Your task to perform on an android device: add a contact Image 0: 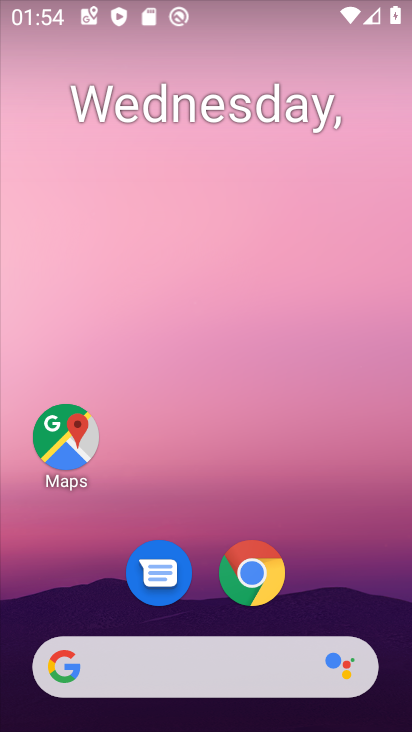
Step 0: drag from (369, 584) to (296, 21)
Your task to perform on an android device: add a contact Image 1: 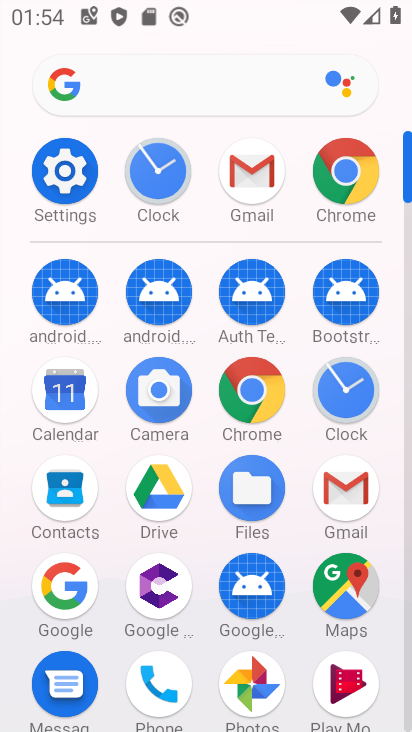
Step 1: click (66, 488)
Your task to perform on an android device: add a contact Image 2: 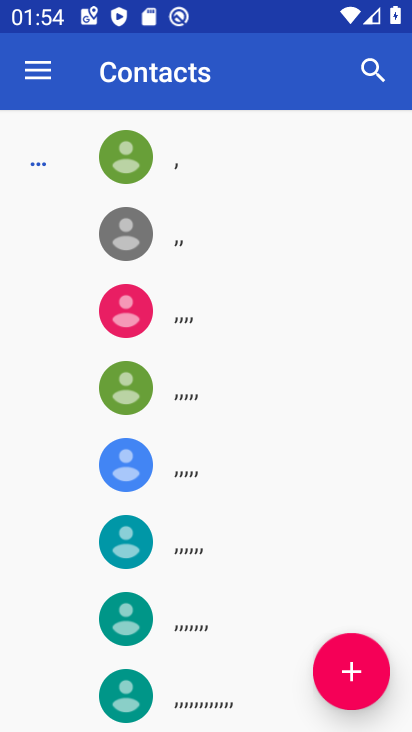
Step 2: click (354, 668)
Your task to perform on an android device: add a contact Image 3: 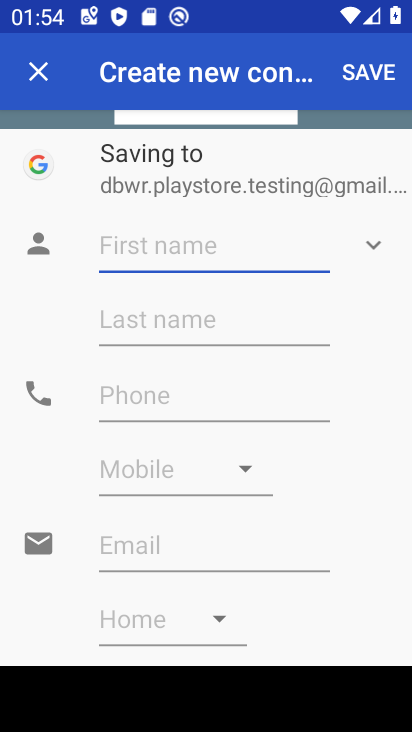
Step 3: type "Satyaprakash"
Your task to perform on an android device: add a contact Image 4: 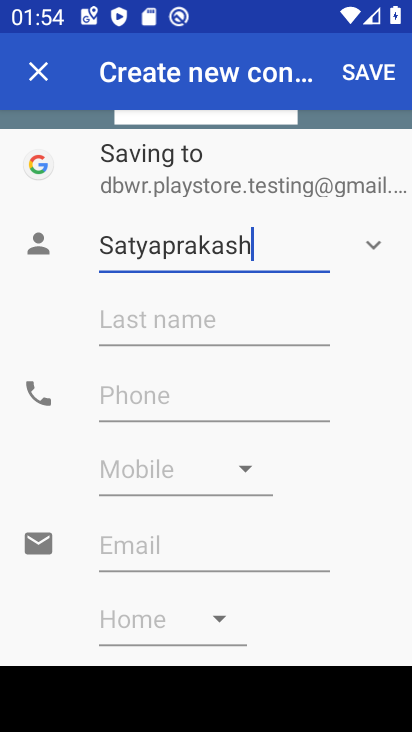
Step 4: click (259, 325)
Your task to perform on an android device: add a contact Image 5: 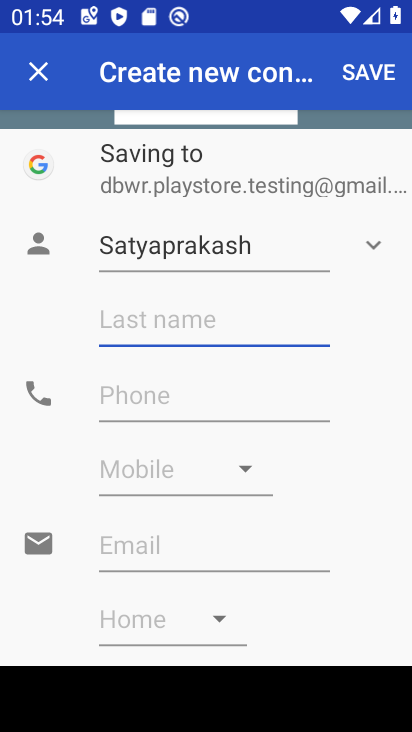
Step 5: type "Tripathi"
Your task to perform on an android device: add a contact Image 6: 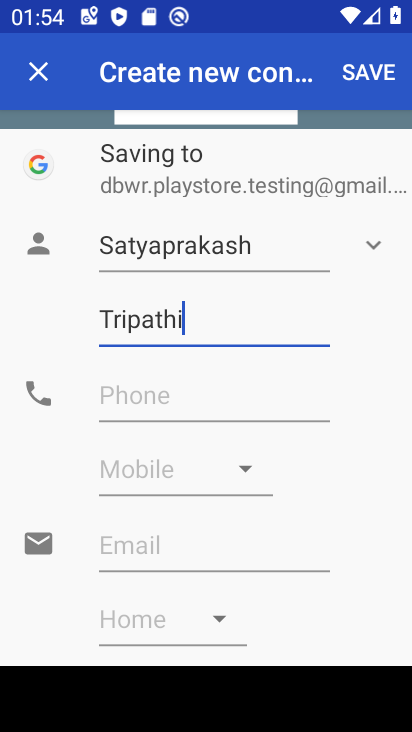
Step 6: click (229, 409)
Your task to perform on an android device: add a contact Image 7: 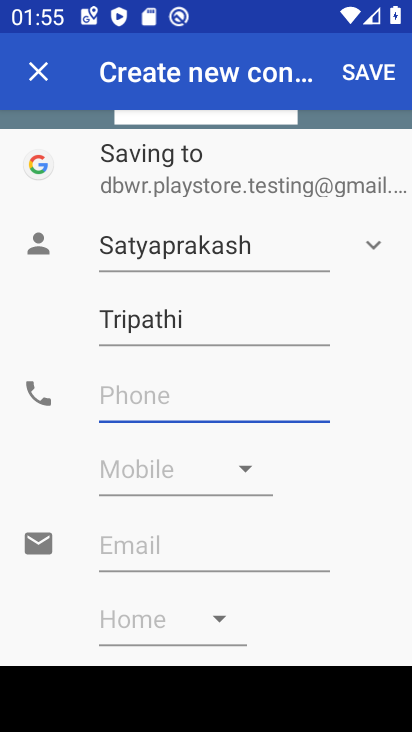
Step 7: type "09988776655"
Your task to perform on an android device: add a contact Image 8: 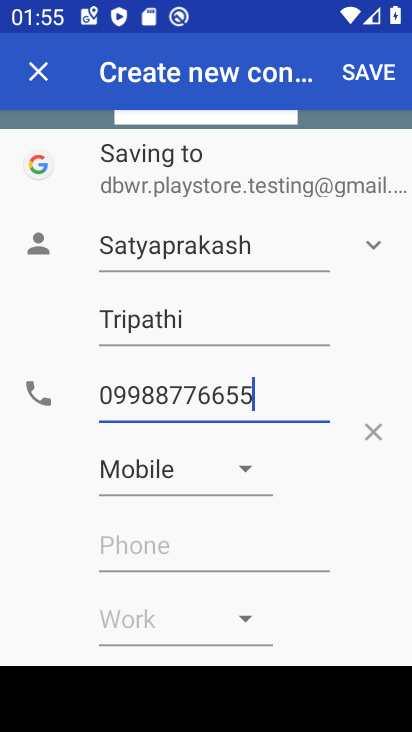
Step 8: click (372, 76)
Your task to perform on an android device: add a contact Image 9: 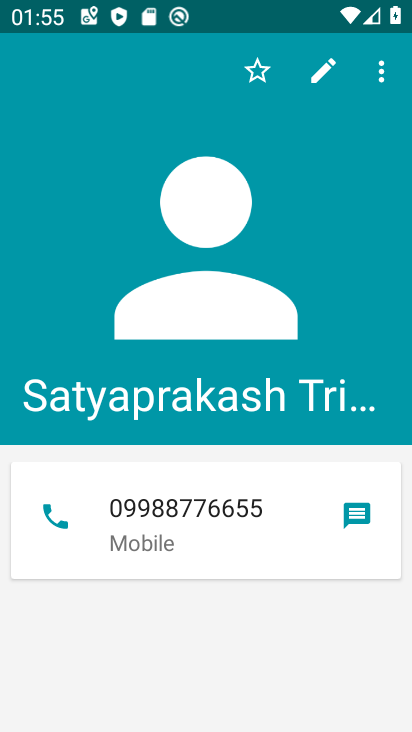
Step 9: task complete